Your task to perform on an android device: turn on priority inbox in the gmail app Image 0: 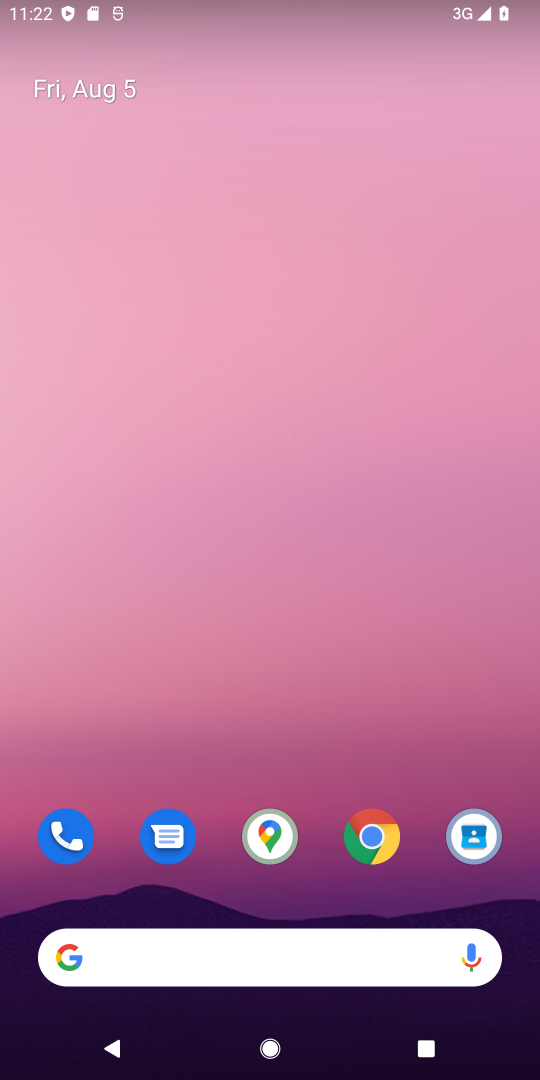
Step 0: drag from (411, 802) to (395, 54)
Your task to perform on an android device: turn on priority inbox in the gmail app Image 1: 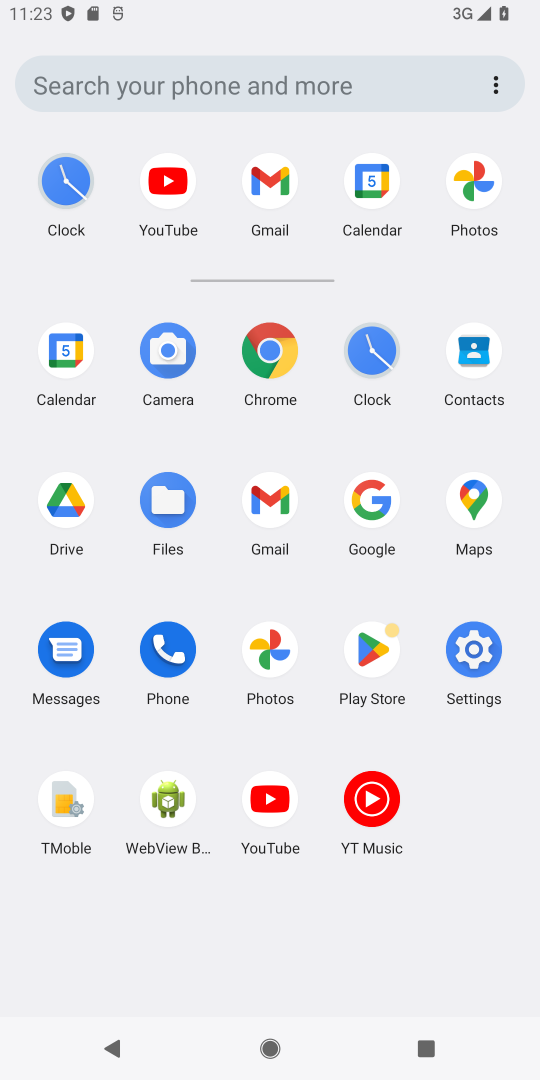
Step 1: click (272, 501)
Your task to perform on an android device: turn on priority inbox in the gmail app Image 2: 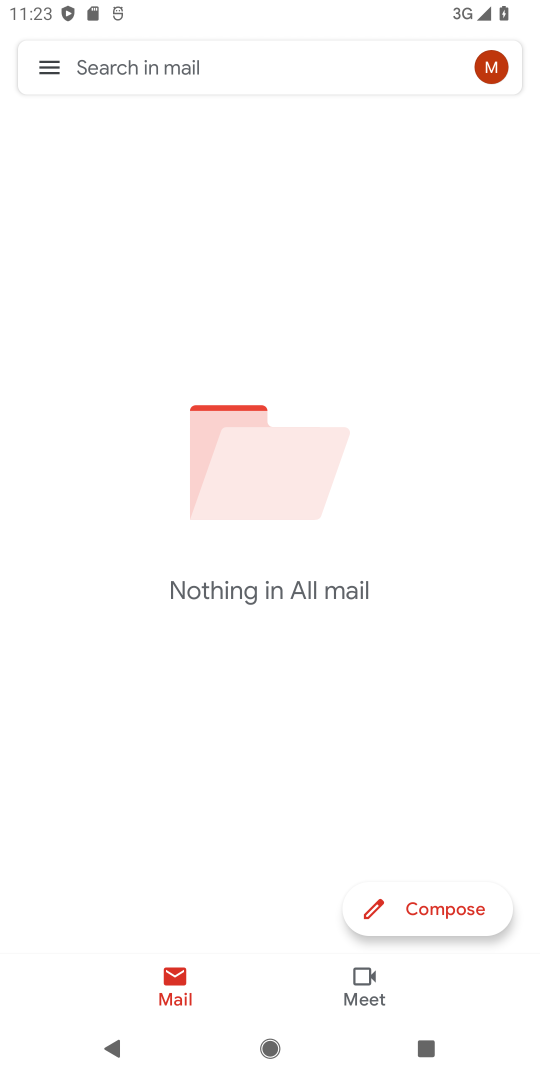
Step 2: click (38, 64)
Your task to perform on an android device: turn on priority inbox in the gmail app Image 3: 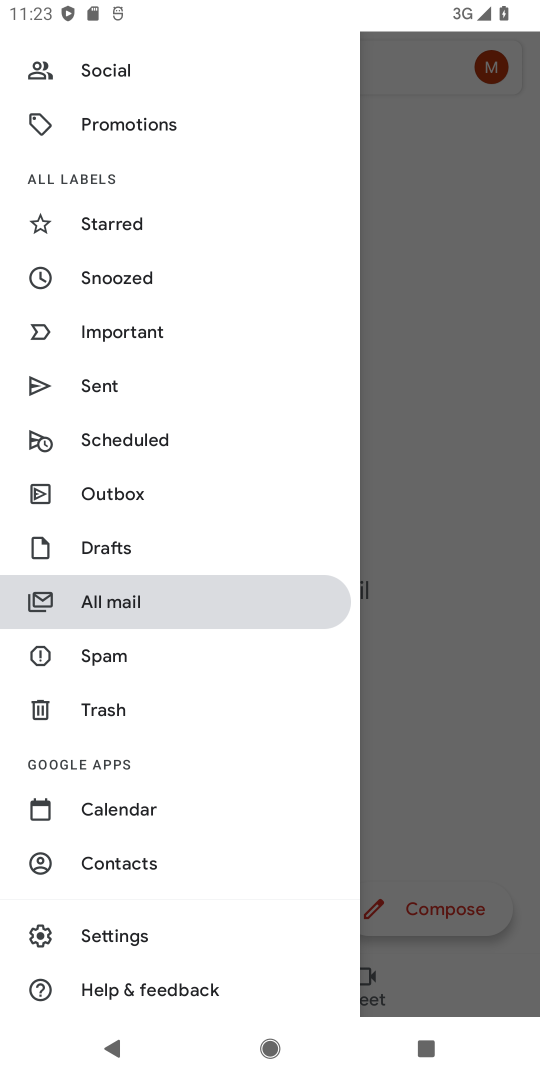
Step 3: drag from (210, 918) to (225, 430)
Your task to perform on an android device: turn on priority inbox in the gmail app Image 4: 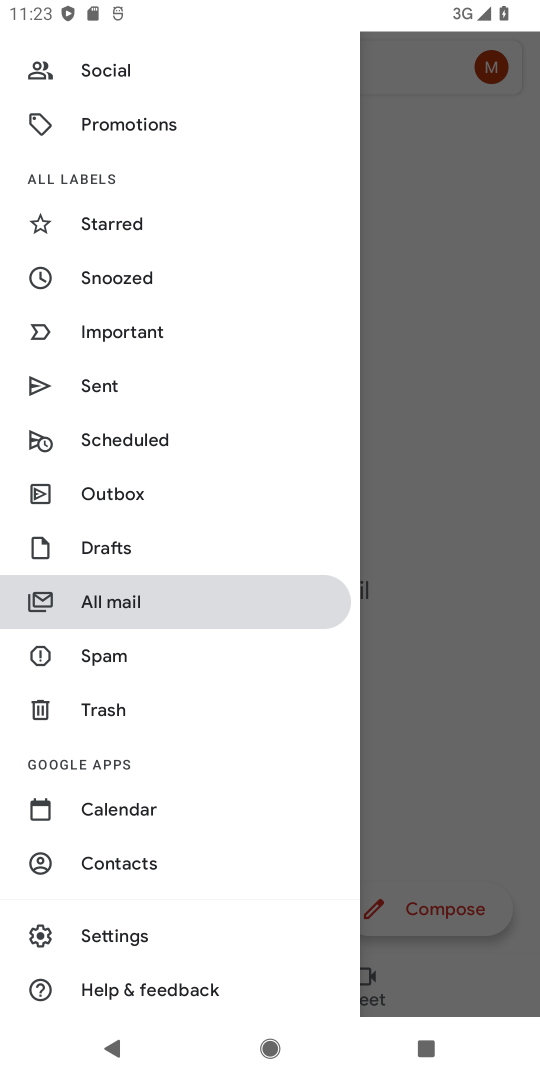
Step 4: click (125, 943)
Your task to perform on an android device: turn on priority inbox in the gmail app Image 5: 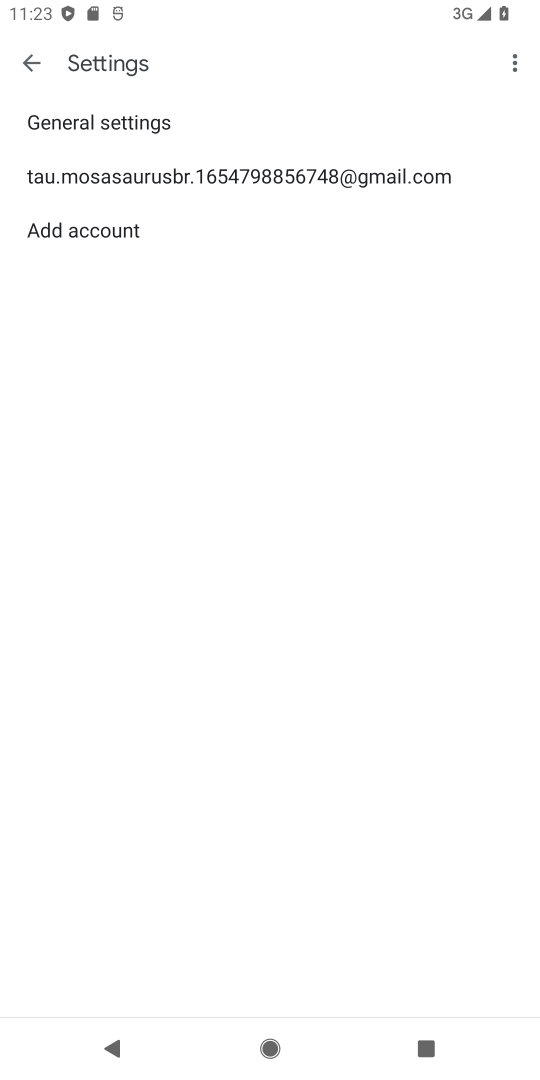
Step 5: click (428, 192)
Your task to perform on an android device: turn on priority inbox in the gmail app Image 6: 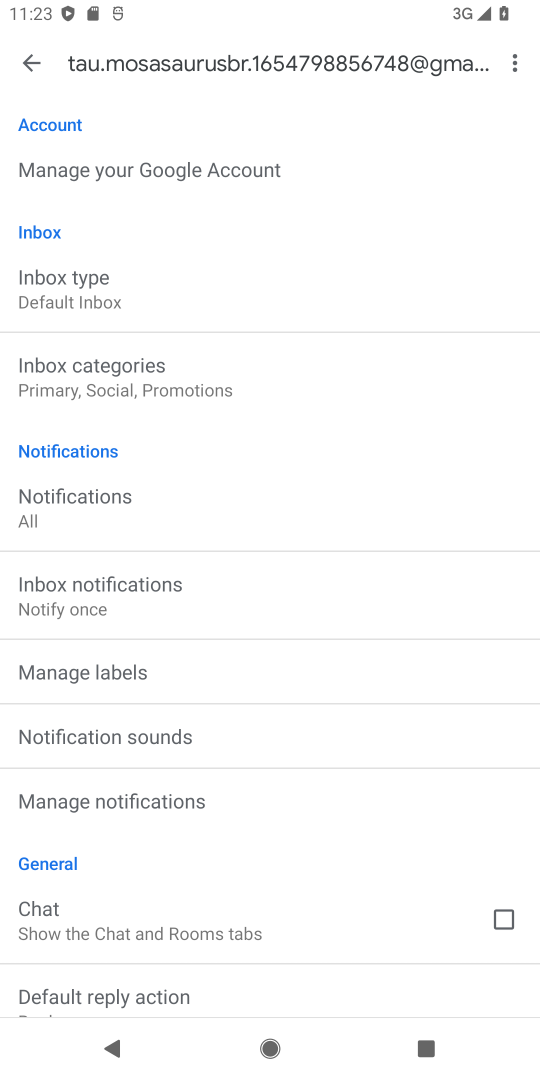
Step 6: click (71, 281)
Your task to perform on an android device: turn on priority inbox in the gmail app Image 7: 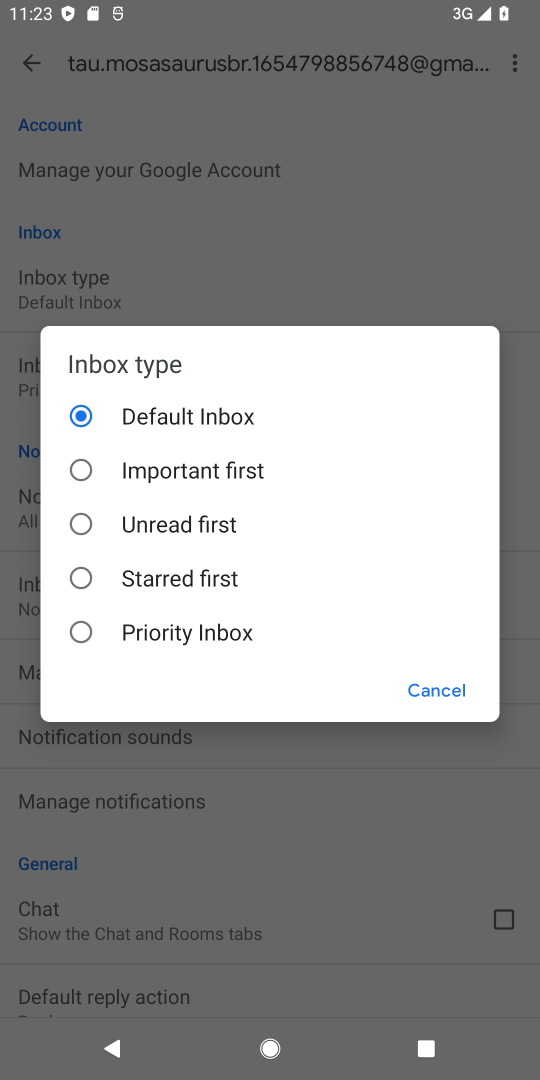
Step 7: task complete